Your task to perform on an android device: open device folders in google photos Image 0: 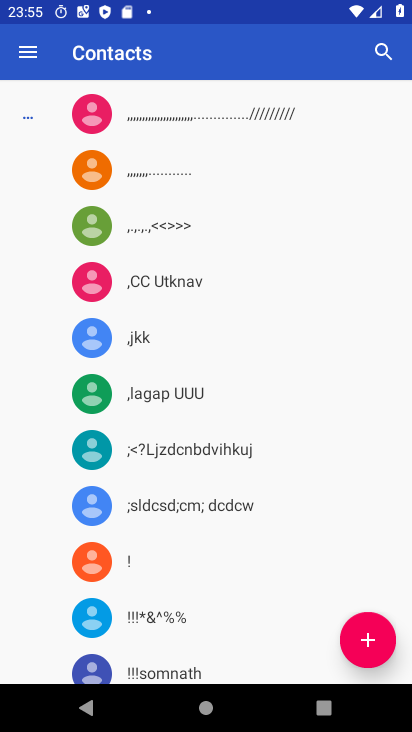
Step 0: press home button
Your task to perform on an android device: open device folders in google photos Image 1: 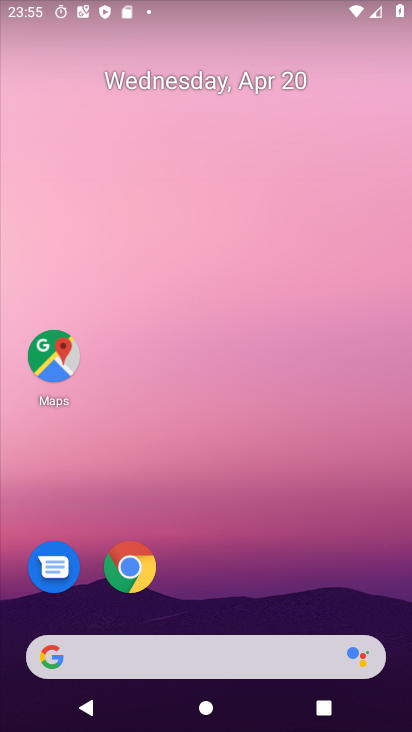
Step 1: drag from (265, 560) to (255, 125)
Your task to perform on an android device: open device folders in google photos Image 2: 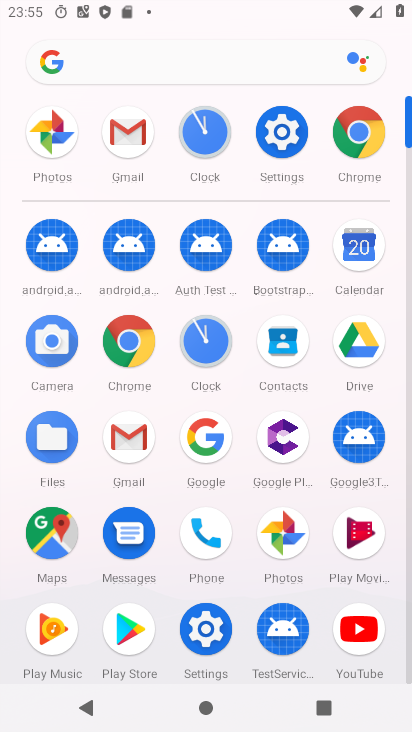
Step 2: click (283, 532)
Your task to perform on an android device: open device folders in google photos Image 3: 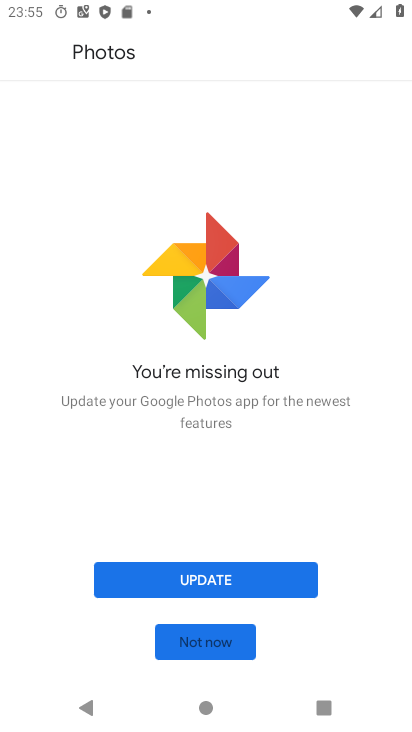
Step 3: click (223, 645)
Your task to perform on an android device: open device folders in google photos Image 4: 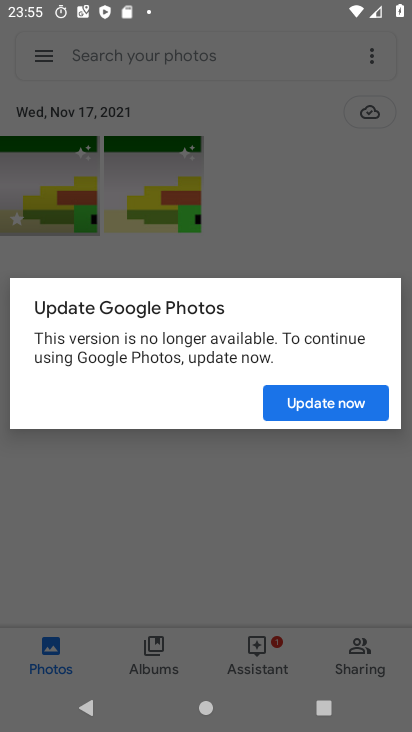
Step 4: click (310, 410)
Your task to perform on an android device: open device folders in google photos Image 5: 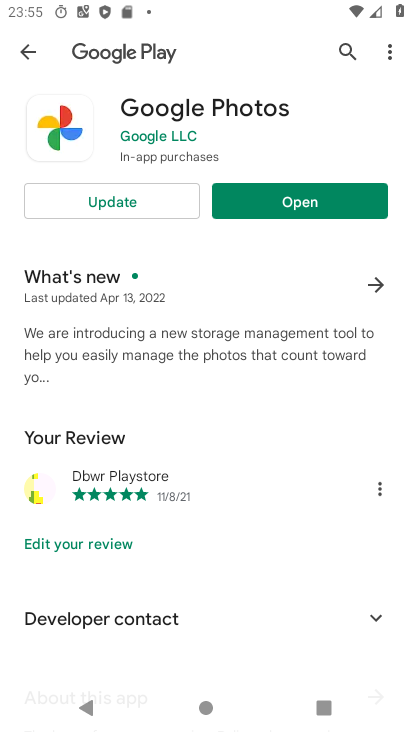
Step 5: task complete